Your task to perform on an android device: turn off smart reply in the gmail app Image 0: 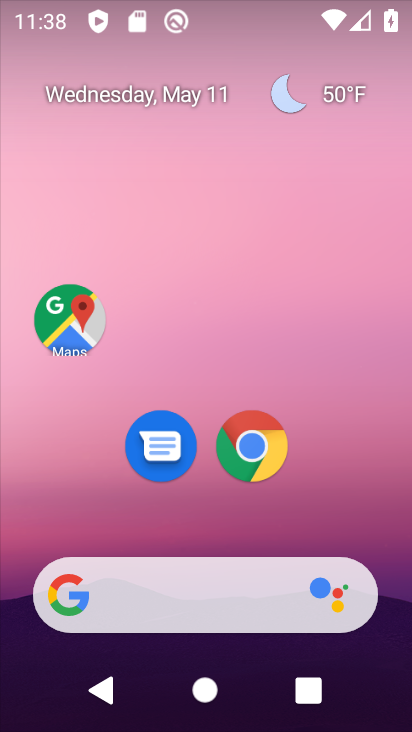
Step 0: drag from (352, 485) to (385, 193)
Your task to perform on an android device: turn off smart reply in the gmail app Image 1: 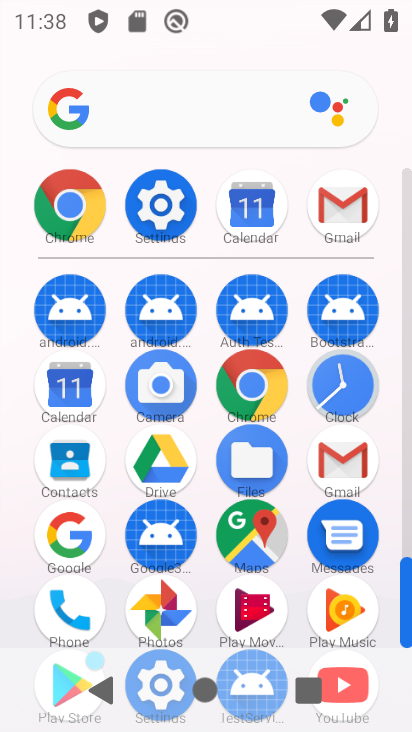
Step 1: click (350, 223)
Your task to perform on an android device: turn off smart reply in the gmail app Image 2: 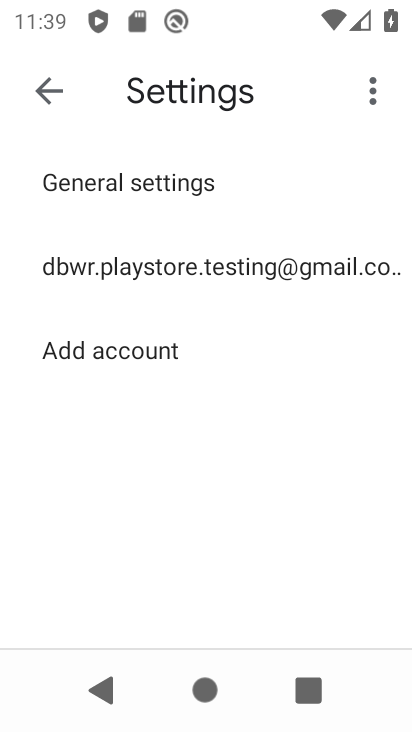
Step 2: click (250, 269)
Your task to perform on an android device: turn off smart reply in the gmail app Image 3: 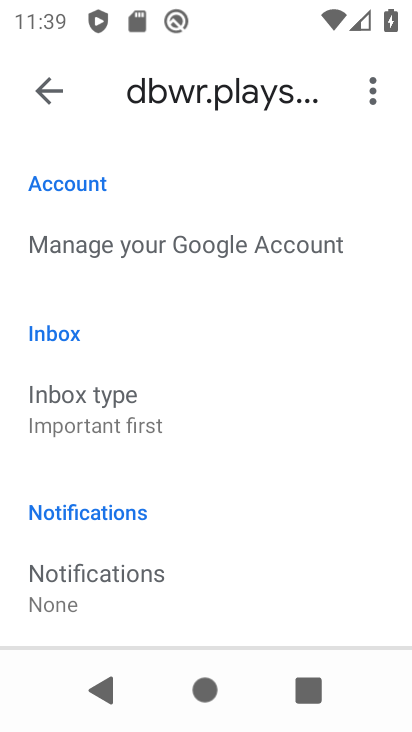
Step 3: task complete